Your task to perform on an android device: open sync settings in chrome Image 0: 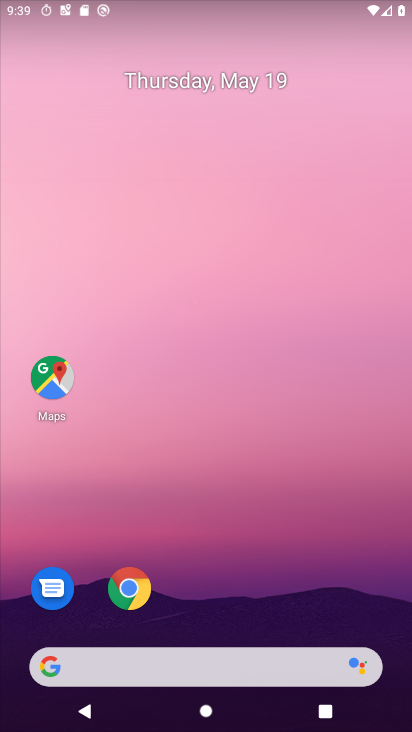
Step 0: press home button
Your task to perform on an android device: open sync settings in chrome Image 1: 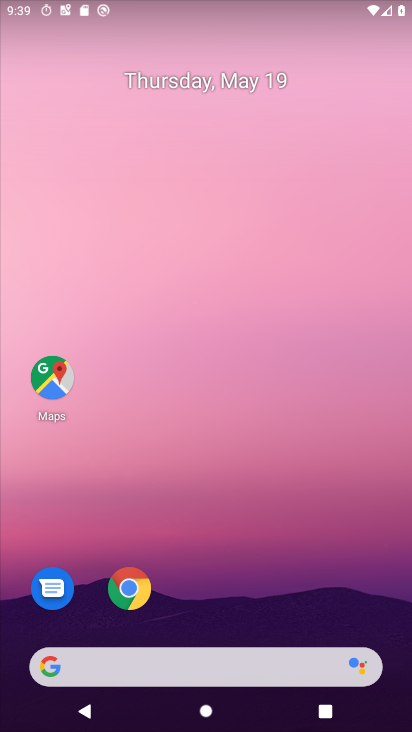
Step 1: click (134, 589)
Your task to perform on an android device: open sync settings in chrome Image 2: 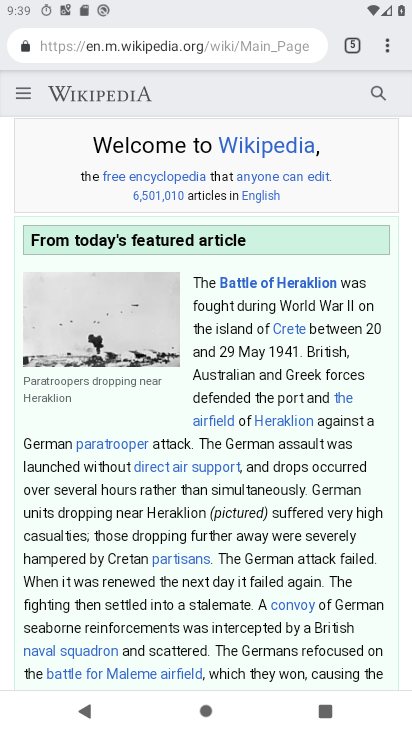
Step 2: drag from (386, 49) to (265, 558)
Your task to perform on an android device: open sync settings in chrome Image 3: 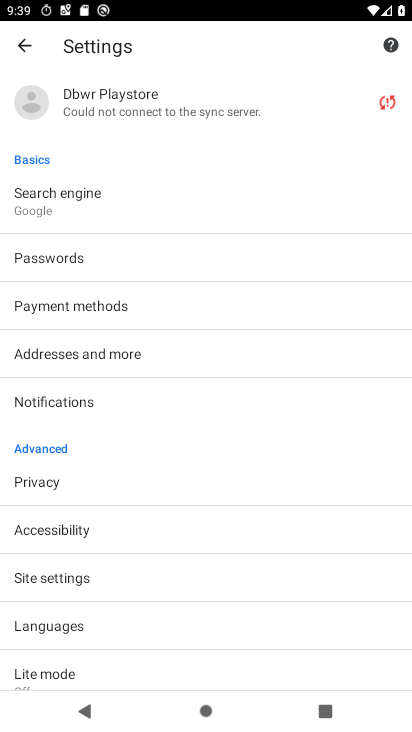
Step 3: click (220, 111)
Your task to perform on an android device: open sync settings in chrome Image 4: 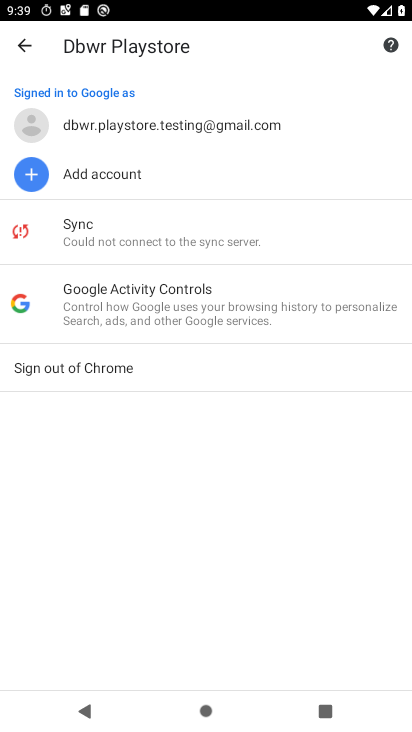
Step 4: click (160, 232)
Your task to perform on an android device: open sync settings in chrome Image 5: 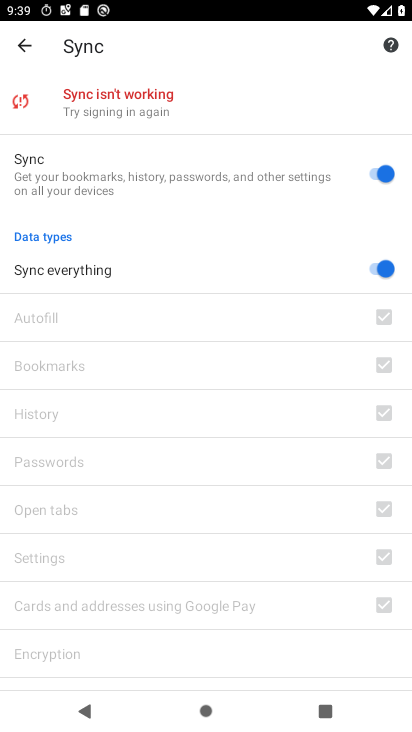
Step 5: task complete